Your task to perform on an android device: turn notification dots off Image 0: 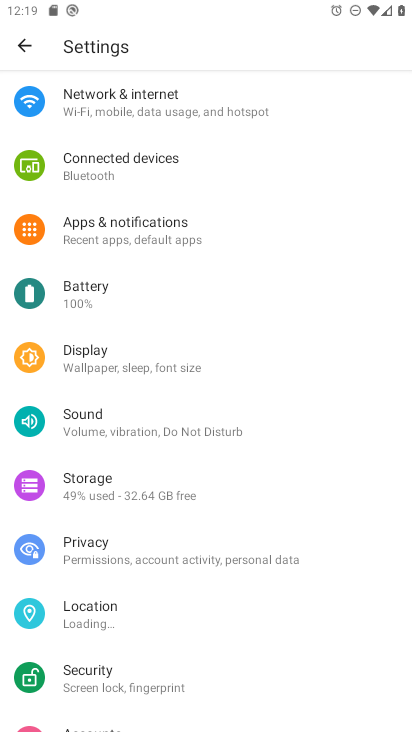
Step 0: press home button
Your task to perform on an android device: turn notification dots off Image 1: 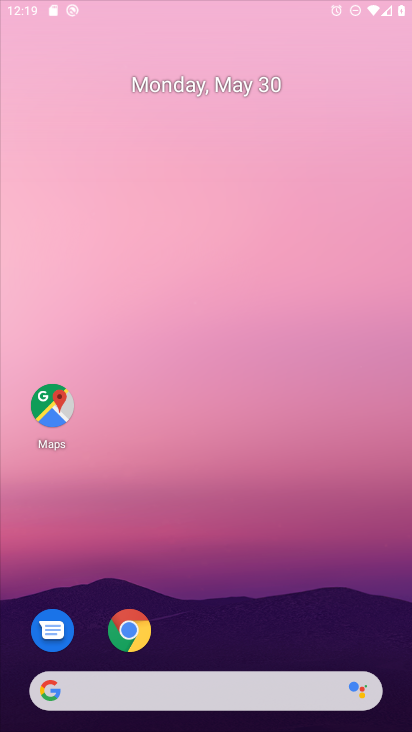
Step 1: press home button
Your task to perform on an android device: turn notification dots off Image 2: 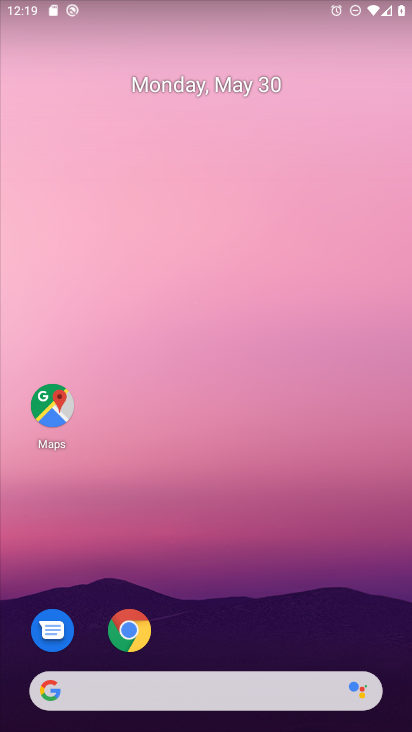
Step 2: drag from (131, 684) to (292, 77)
Your task to perform on an android device: turn notification dots off Image 3: 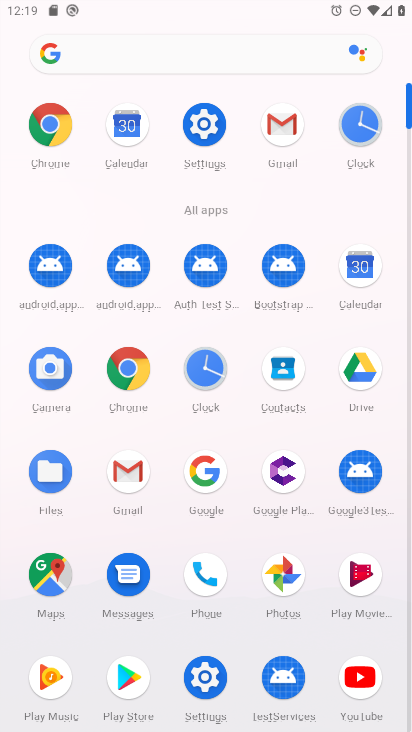
Step 3: click (205, 125)
Your task to perform on an android device: turn notification dots off Image 4: 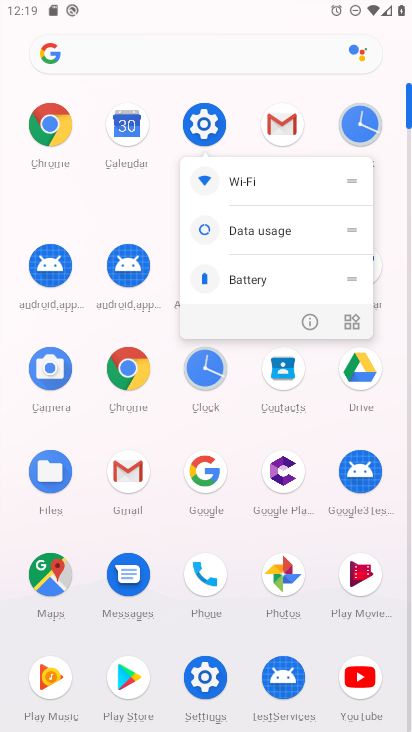
Step 4: click (213, 118)
Your task to perform on an android device: turn notification dots off Image 5: 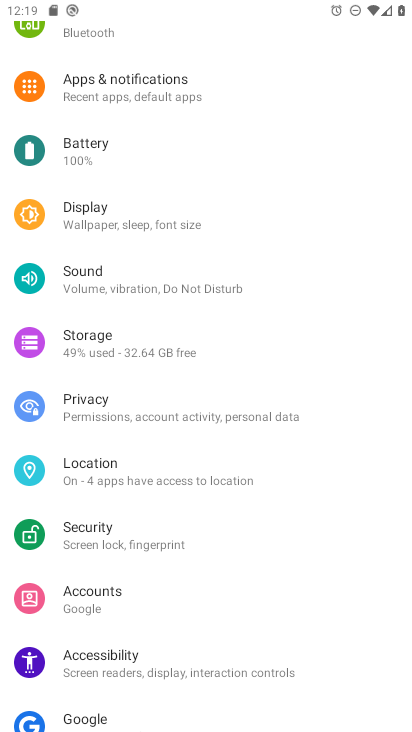
Step 5: drag from (233, 619) to (367, 162)
Your task to perform on an android device: turn notification dots off Image 6: 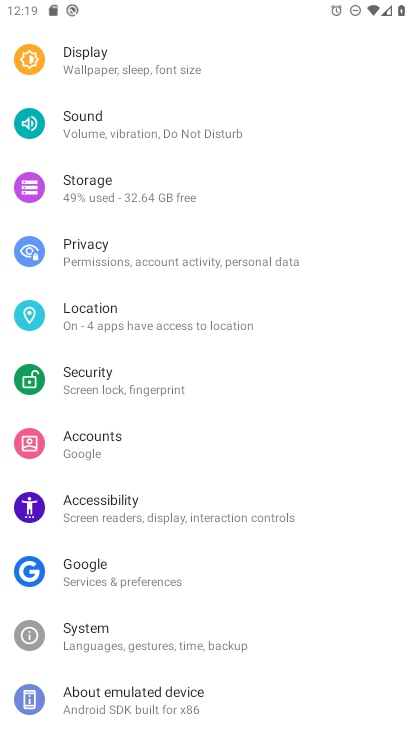
Step 6: drag from (269, 153) to (246, 611)
Your task to perform on an android device: turn notification dots off Image 7: 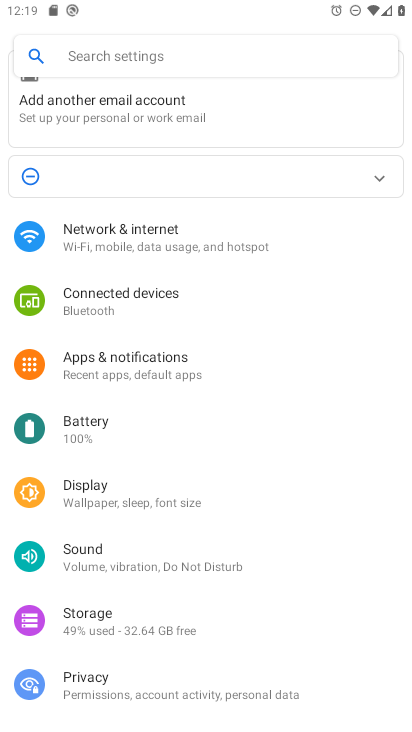
Step 7: click (174, 365)
Your task to perform on an android device: turn notification dots off Image 8: 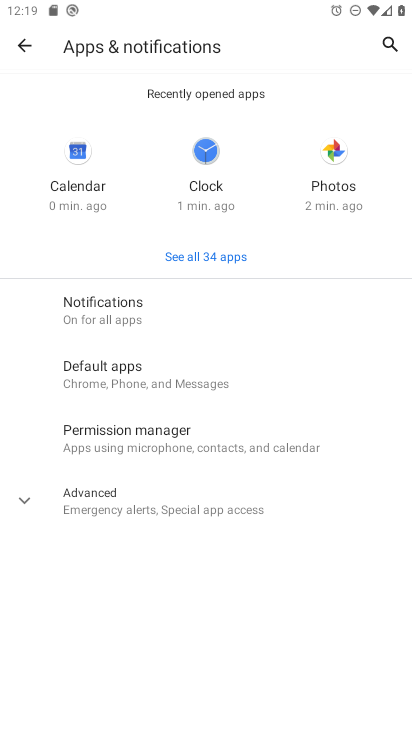
Step 8: click (111, 317)
Your task to perform on an android device: turn notification dots off Image 9: 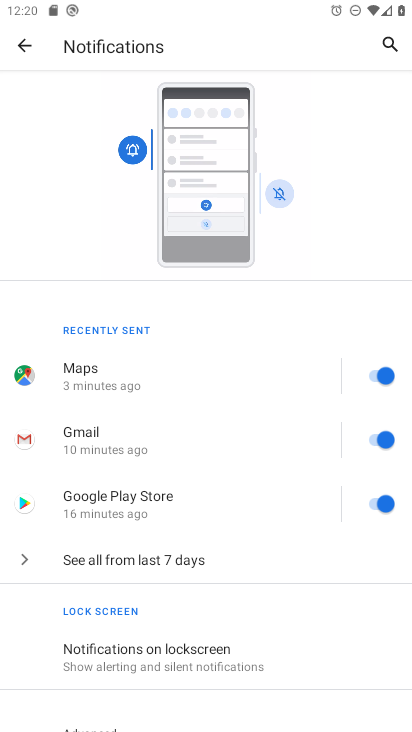
Step 9: drag from (247, 652) to (340, 217)
Your task to perform on an android device: turn notification dots off Image 10: 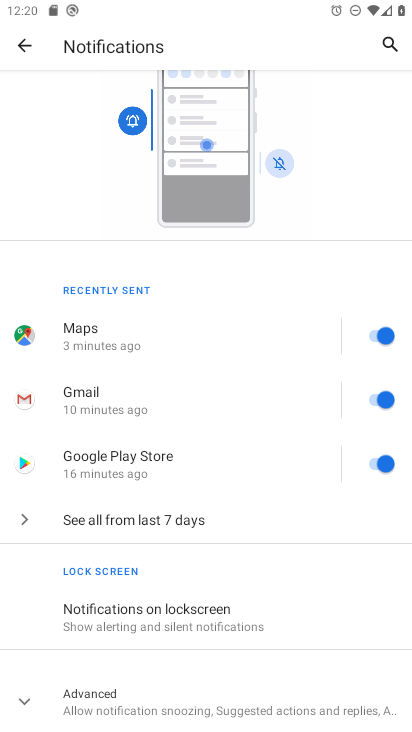
Step 10: click (153, 700)
Your task to perform on an android device: turn notification dots off Image 11: 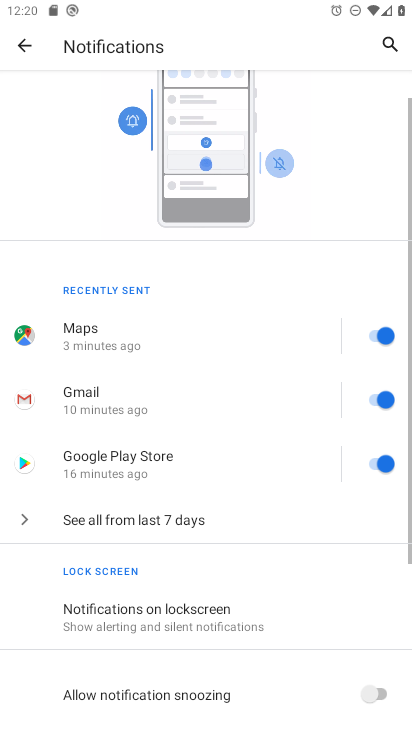
Step 11: drag from (238, 649) to (377, 251)
Your task to perform on an android device: turn notification dots off Image 12: 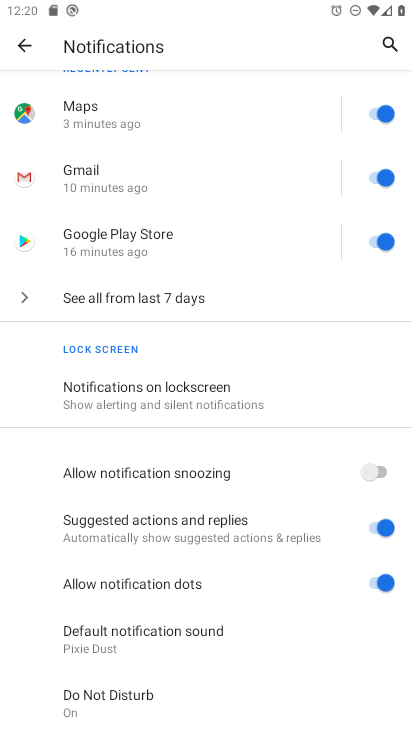
Step 12: click (377, 582)
Your task to perform on an android device: turn notification dots off Image 13: 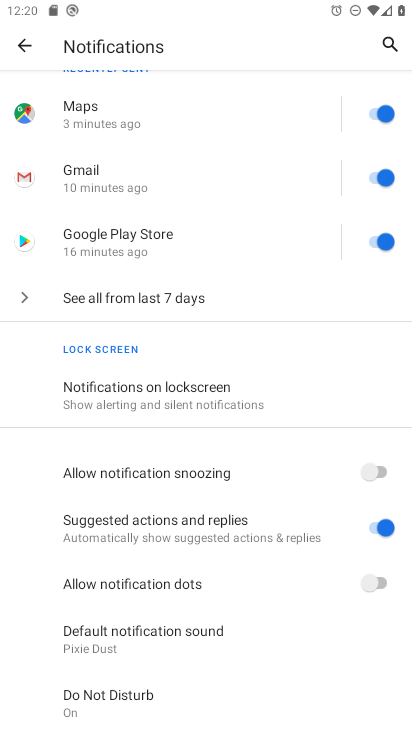
Step 13: task complete